Your task to perform on an android device: choose inbox layout in the gmail app Image 0: 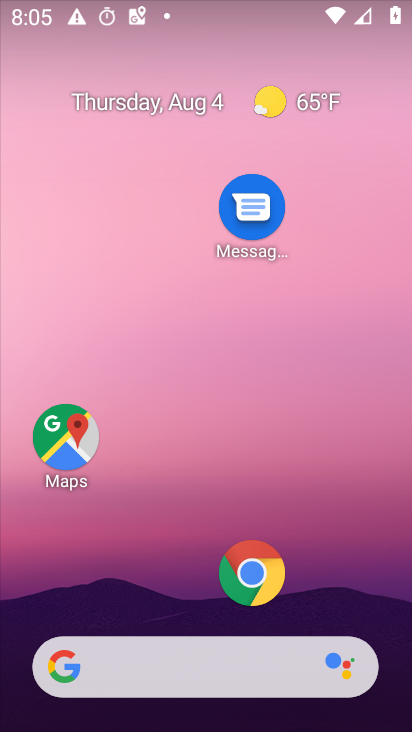
Step 0: press home button
Your task to perform on an android device: choose inbox layout in the gmail app Image 1: 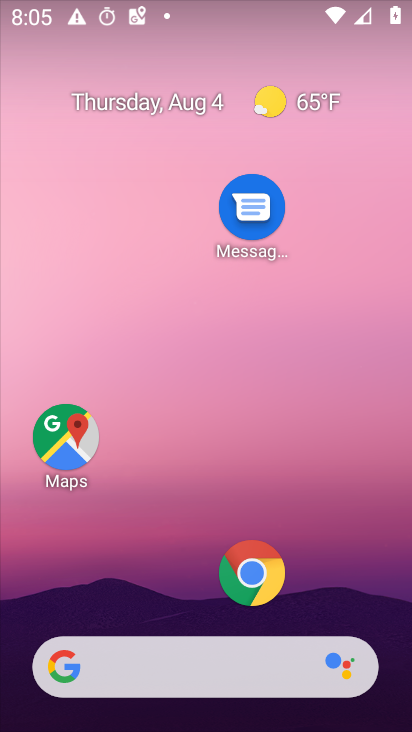
Step 1: drag from (176, 627) to (188, 160)
Your task to perform on an android device: choose inbox layout in the gmail app Image 2: 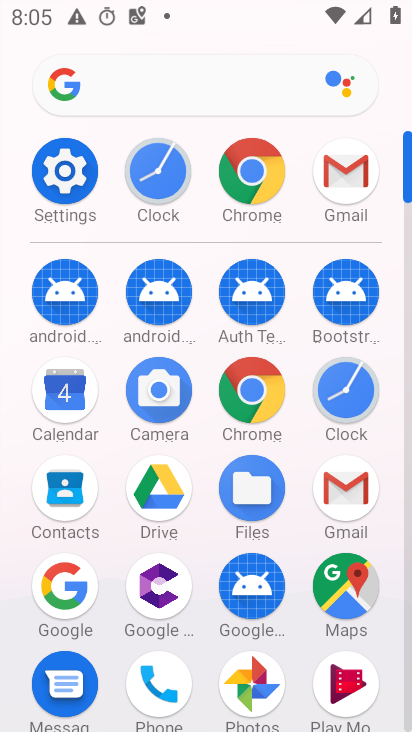
Step 2: click (355, 179)
Your task to perform on an android device: choose inbox layout in the gmail app Image 3: 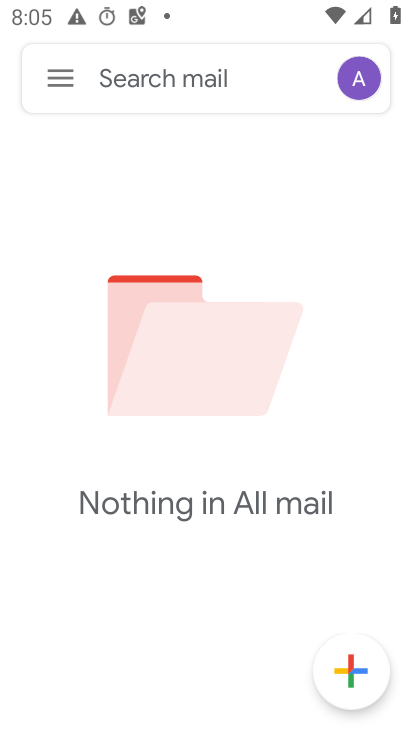
Step 3: click (56, 78)
Your task to perform on an android device: choose inbox layout in the gmail app Image 4: 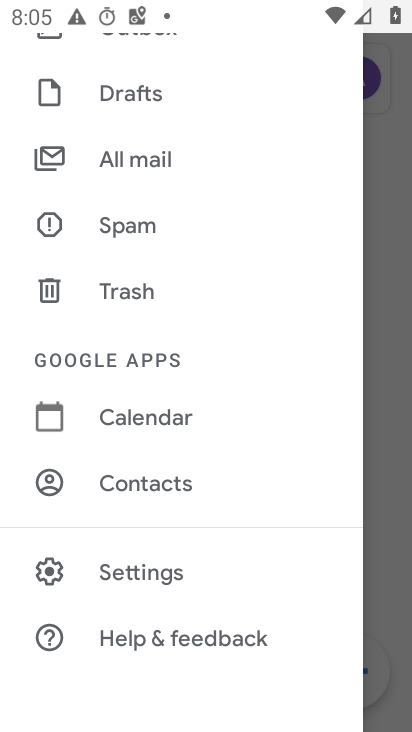
Step 4: click (133, 579)
Your task to perform on an android device: choose inbox layout in the gmail app Image 5: 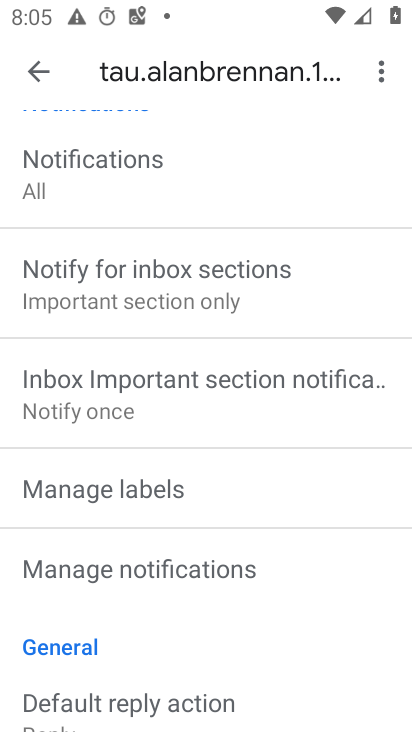
Step 5: drag from (251, 252) to (301, 610)
Your task to perform on an android device: choose inbox layout in the gmail app Image 6: 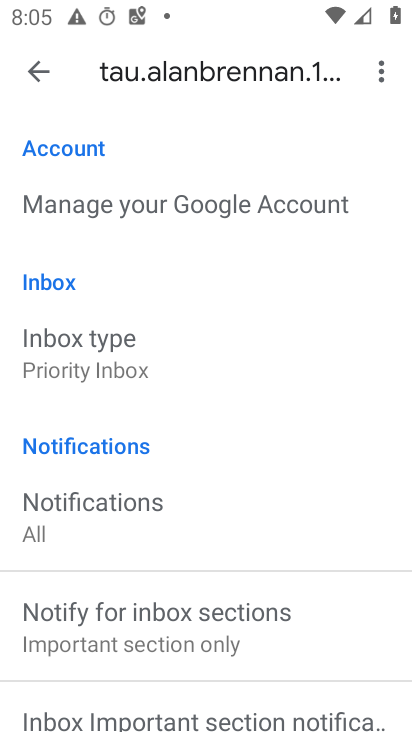
Step 6: drag from (222, 288) to (151, 623)
Your task to perform on an android device: choose inbox layout in the gmail app Image 7: 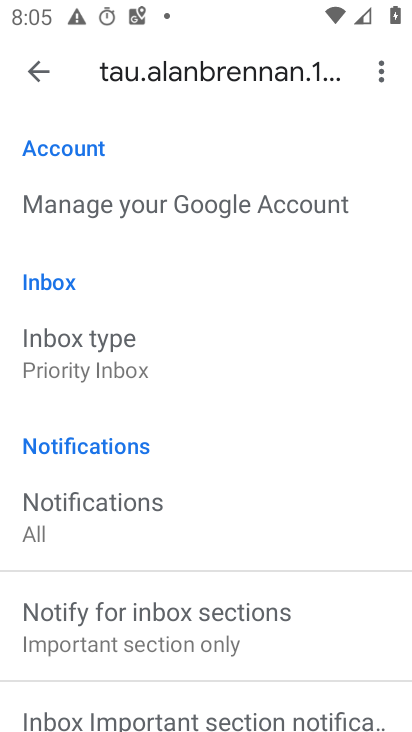
Step 7: click (49, 356)
Your task to perform on an android device: choose inbox layout in the gmail app Image 8: 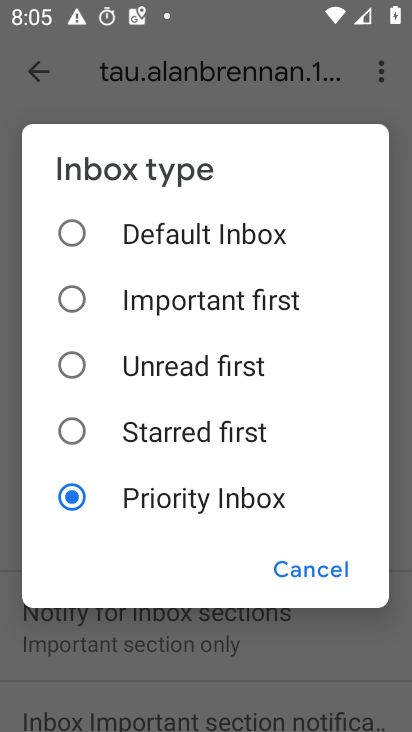
Step 8: click (75, 303)
Your task to perform on an android device: choose inbox layout in the gmail app Image 9: 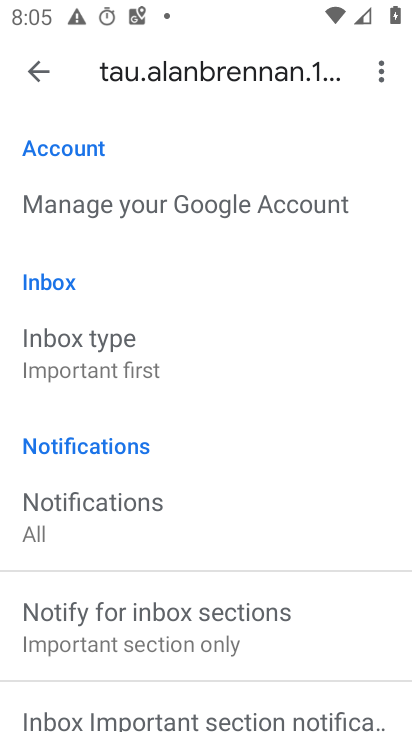
Step 9: task complete